Your task to perform on an android device: Open Yahoo.com Image 0: 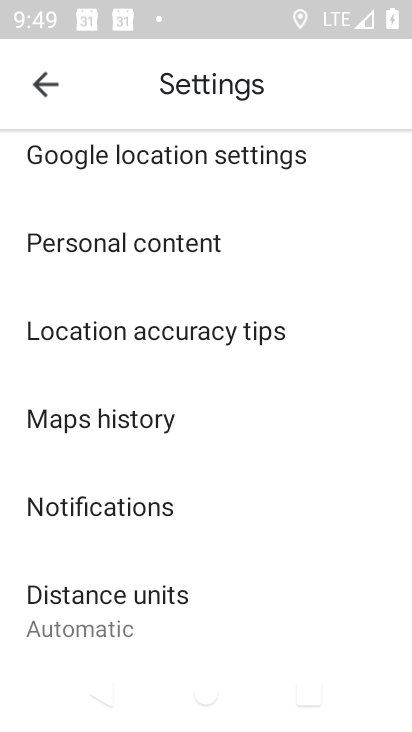
Step 0: press home button
Your task to perform on an android device: Open Yahoo.com Image 1: 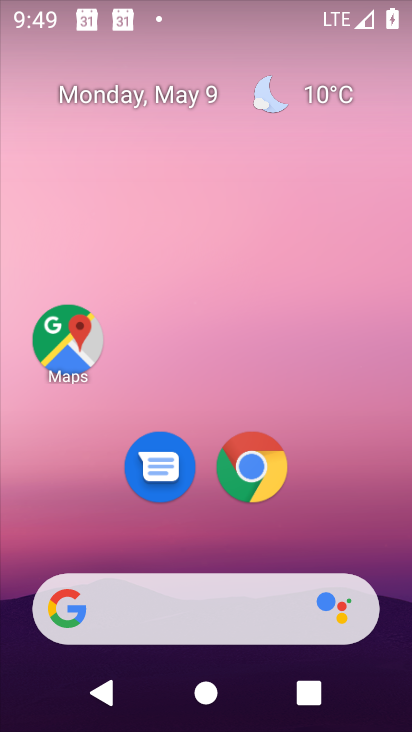
Step 1: click (262, 465)
Your task to perform on an android device: Open Yahoo.com Image 2: 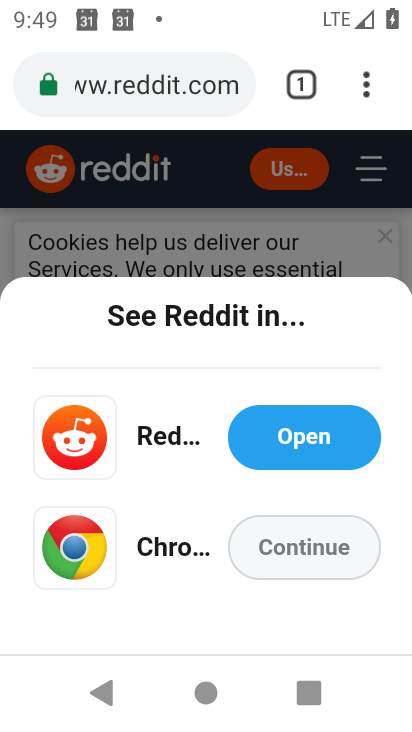
Step 2: click (143, 77)
Your task to perform on an android device: Open Yahoo.com Image 3: 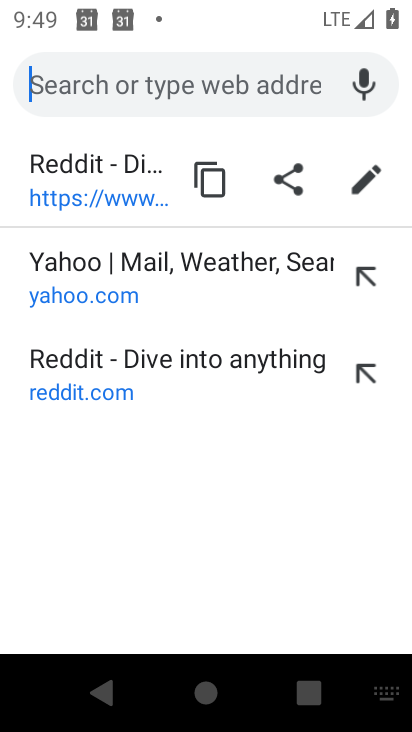
Step 3: click (48, 292)
Your task to perform on an android device: Open Yahoo.com Image 4: 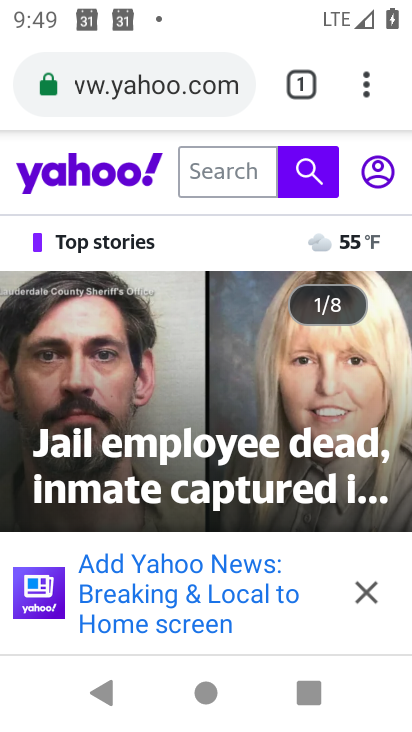
Step 4: task complete